Your task to perform on an android device: turn on the 24-hour format for clock Image 0: 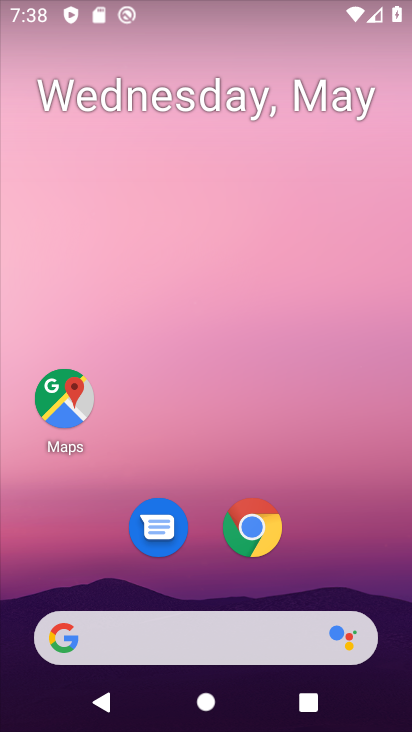
Step 0: drag from (332, 548) to (327, 121)
Your task to perform on an android device: turn on the 24-hour format for clock Image 1: 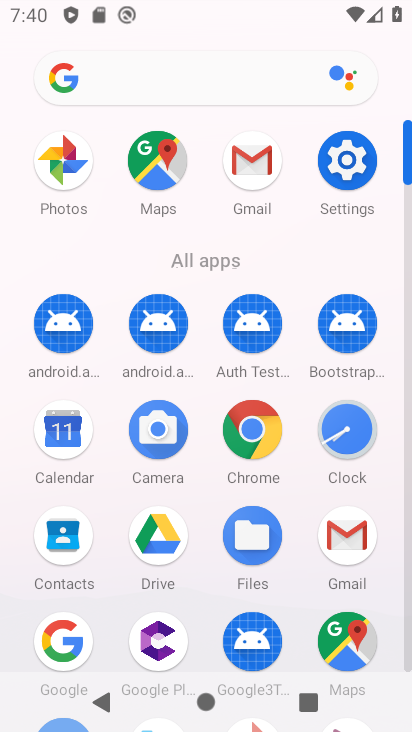
Step 1: click (334, 411)
Your task to perform on an android device: turn on the 24-hour format for clock Image 2: 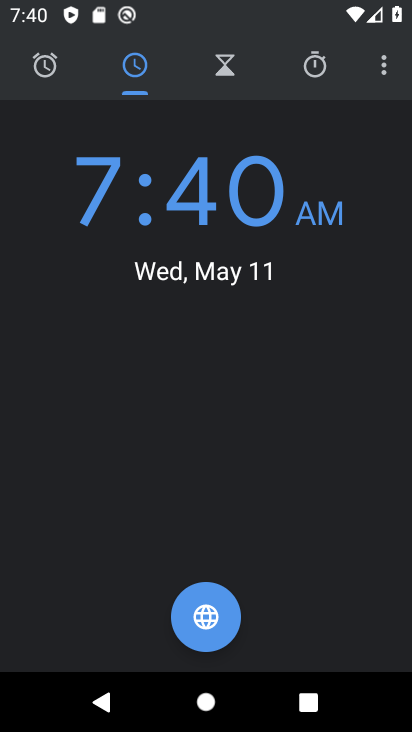
Step 2: click (378, 63)
Your task to perform on an android device: turn on the 24-hour format for clock Image 3: 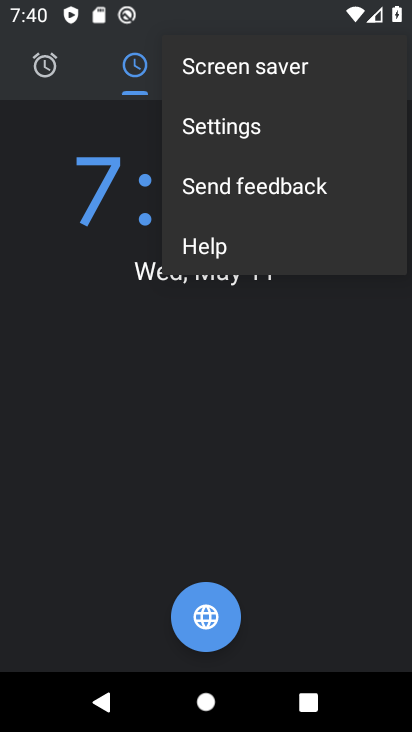
Step 3: click (294, 133)
Your task to perform on an android device: turn on the 24-hour format for clock Image 4: 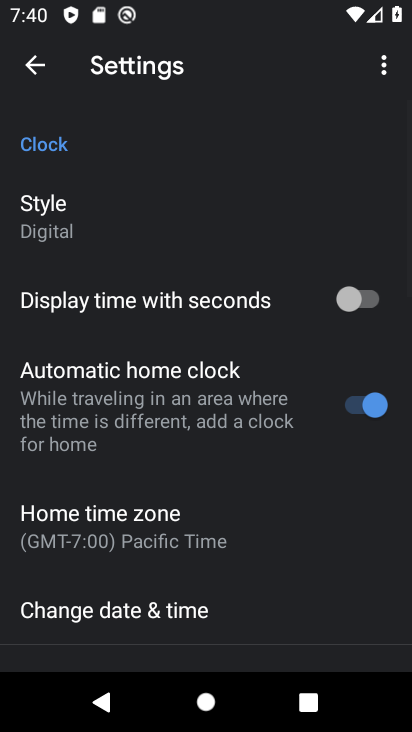
Step 4: click (95, 234)
Your task to perform on an android device: turn on the 24-hour format for clock Image 5: 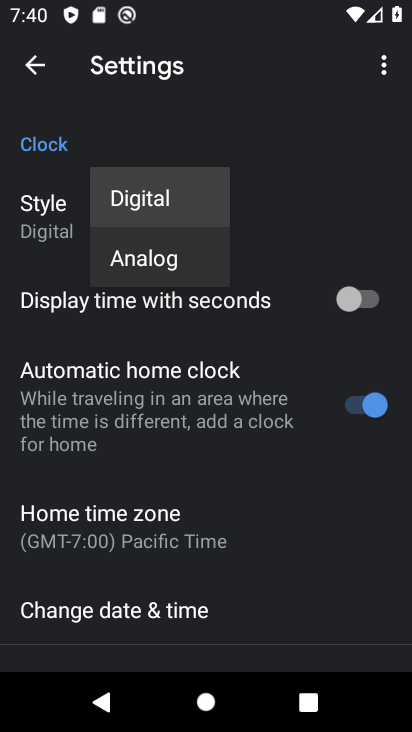
Step 5: click (42, 269)
Your task to perform on an android device: turn on the 24-hour format for clock Image 6: 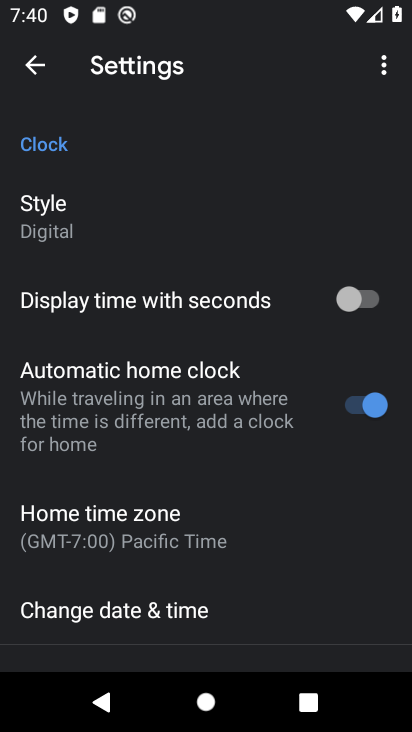
Step 6: click (130, 618)
Your task to perform on an android device: turn on the 24-hour format for clock Image 7: 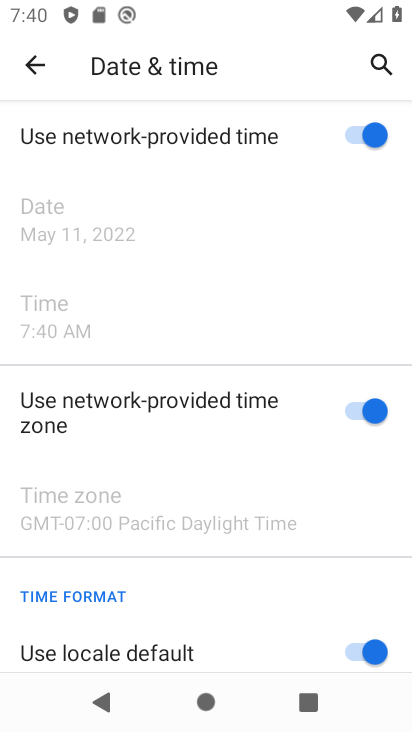
Step 7: drag from (196, 584) to (157, 208)
Your task to perform on an android device: turn on the 24-hour format for clock Image 8: 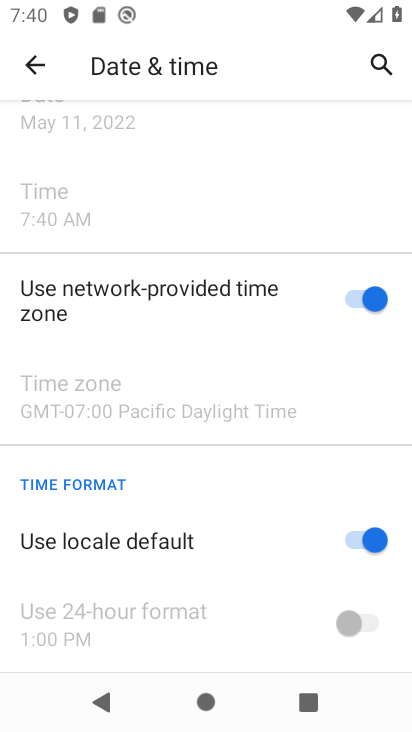
Step 8: click (193, 241)
Your task to perform on an android device: turn on the 24-hour format for clock Image 9: 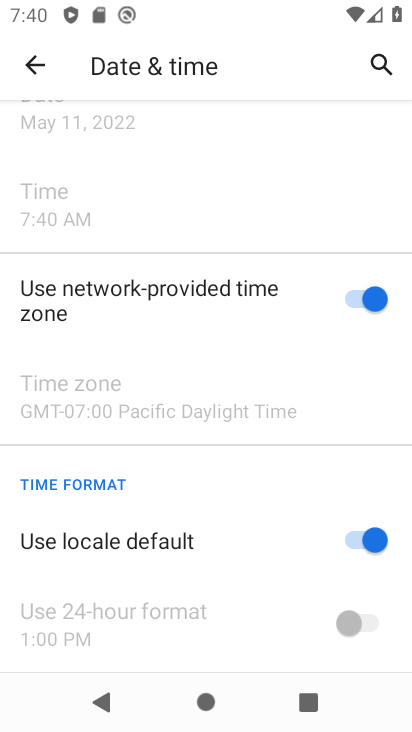
Step 9: click (373, 553)
Your task to perform on an android device: turn on the 24-hour format for clock Image 10: 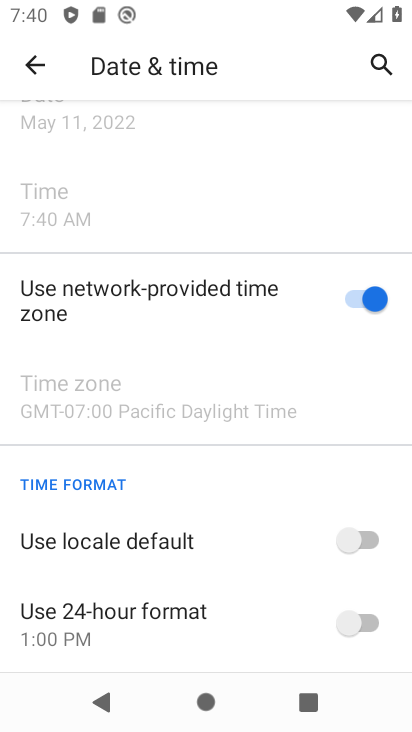
Step 10: click (355, 626)
Your task to perform on an android device: turn on the 24-hour format for clock Image 11: 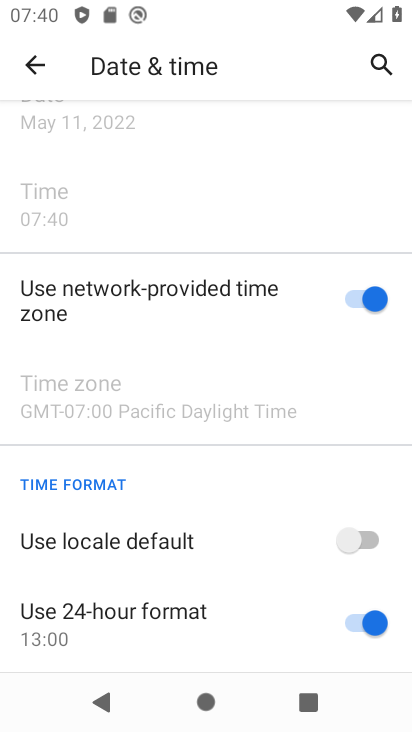
Step 11: task complete